Your task to perform on an android device: turn on improve location accuracy Image 0: 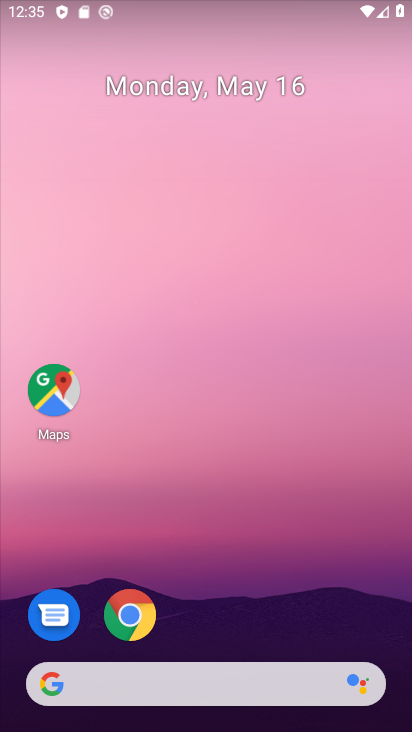
Step 0: drag from (286, 576) to (233, 52)
Your task to perform on an android device: turn on improve location accuracy Image 1: 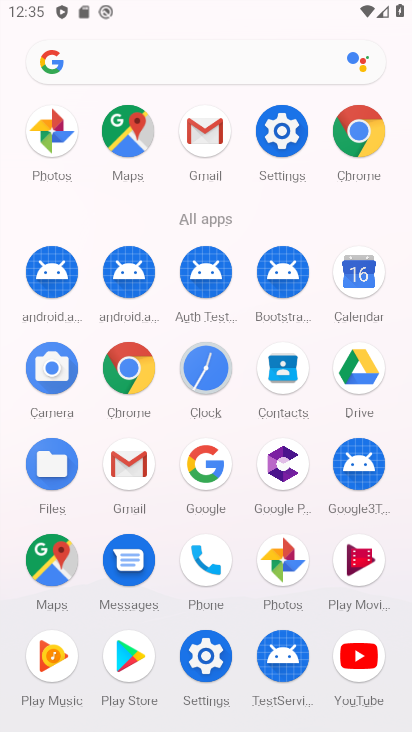
Step 1: click (293, 128)
Your task to perform on an android device: turn on improve location accuracy Image 2: 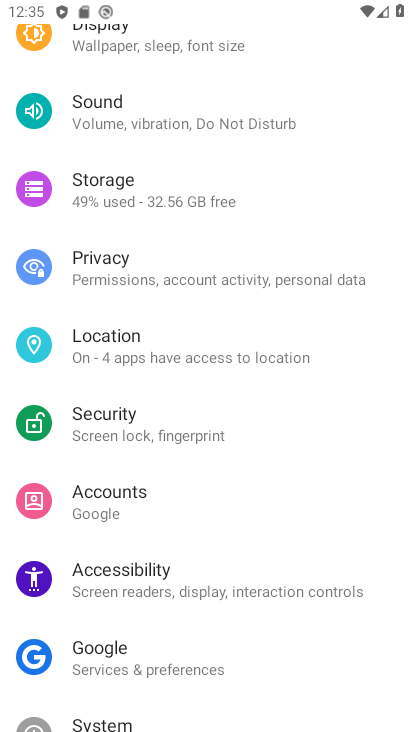
Step 2: click (149, 352)
Your task to perform on an android device: turn on improve location accuracy Image 3: 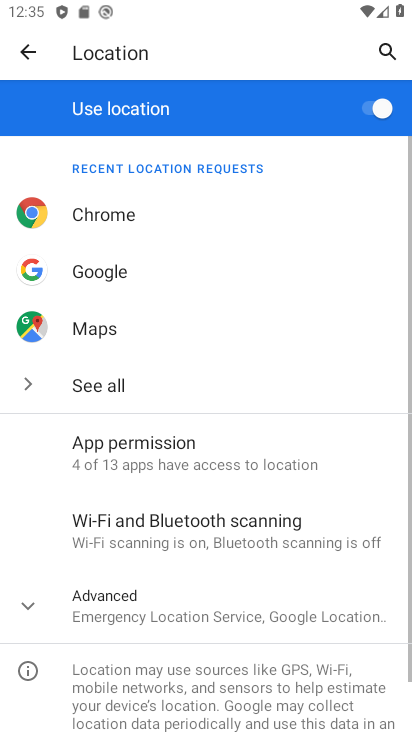
Step 3: click (175, 619)
Your task to perform on an android device: turn on improve location accuracy Image 4: 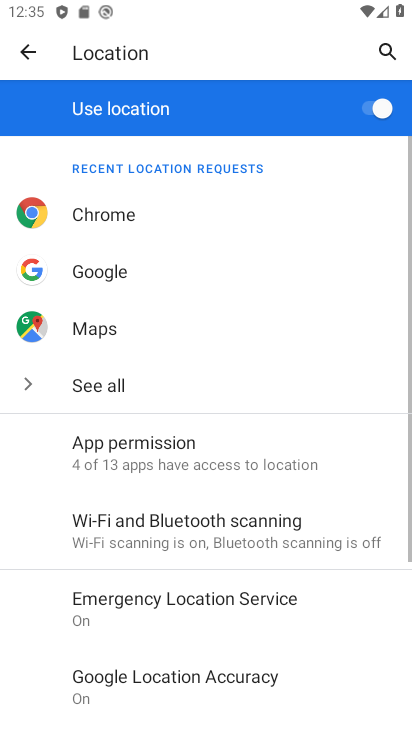
Step 4: drag from (250, 630) to (277, 200)
Your task to perform on an android device: turn on improve location accuracy Image 5: 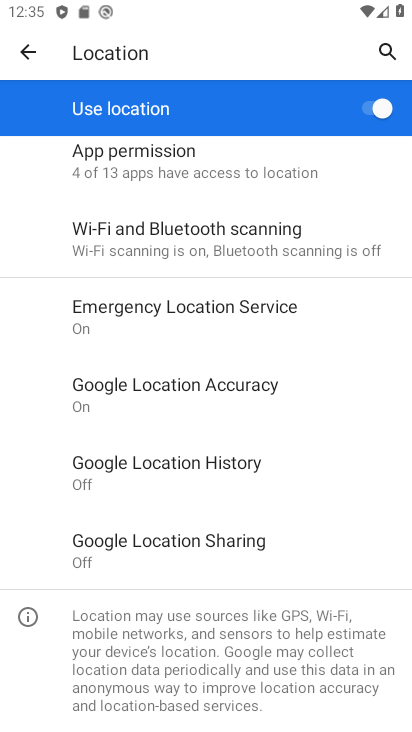
Step 5: click (219, 378)
Your task to perform on an android device: turn on improve location accuracy Image 6: 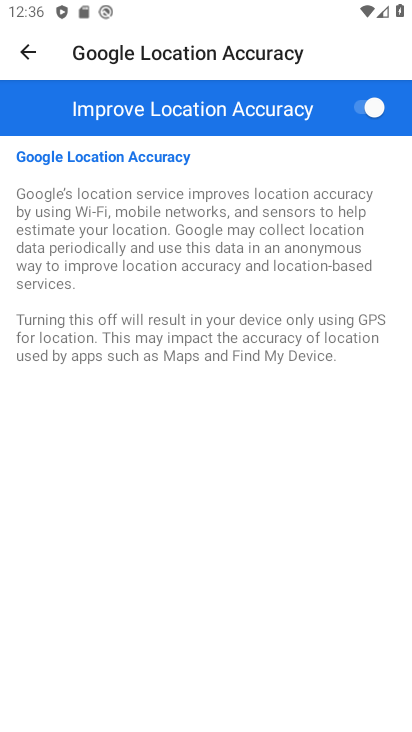
Step 6: task complete